Your task to perform on an android device: Open Amazon Image 0: 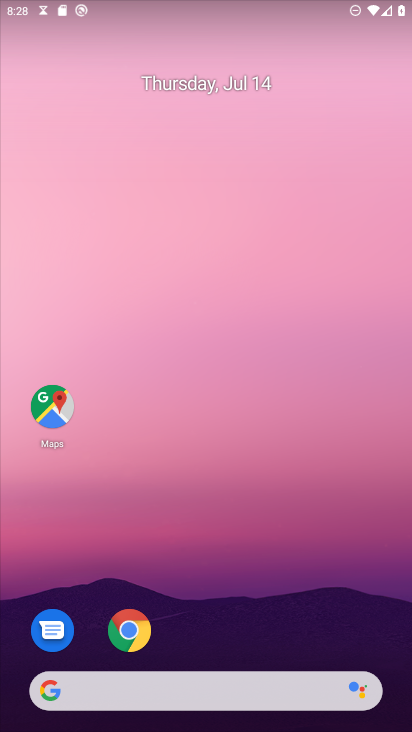
Step 0: click (122, 629)
Your task to perform on an android device: Open Amazon Image 1: 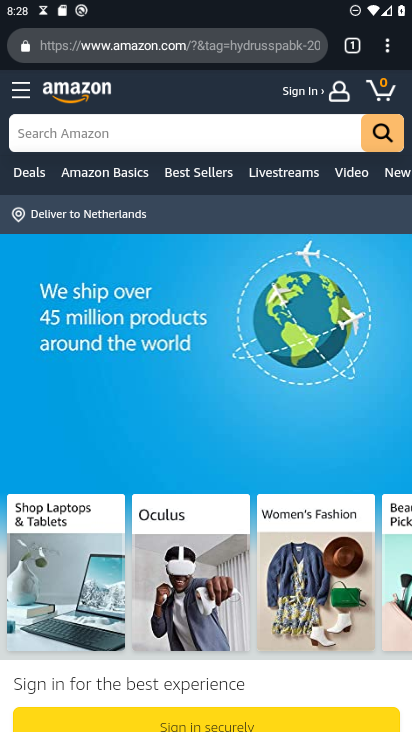
Step 1: task complete